Your task to perform on an android device: Open Google Maps Image 0: 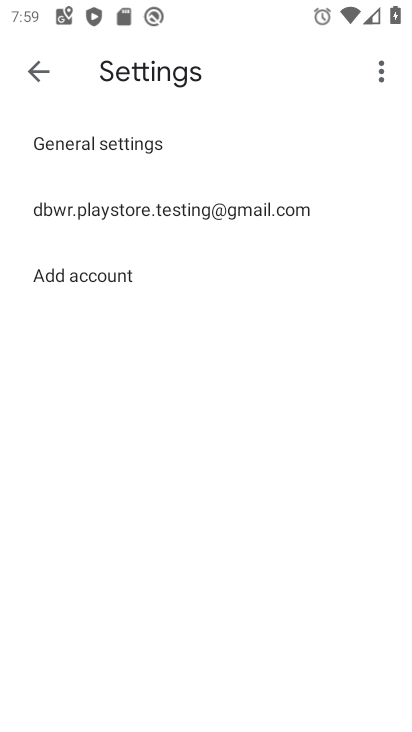
Step 0: press home button
Your task to perform on an android device: Open Google Maps Image 1: 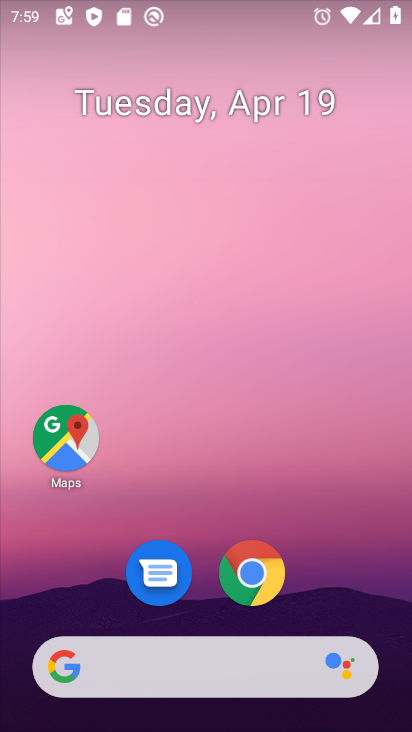
Step 1: click (60, 436)
Your task to perform on an android device: Open Google Maps Image 2: 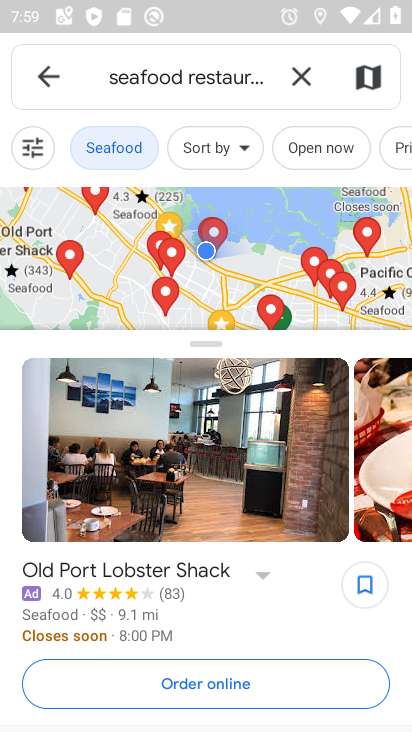
Step 2: click (41, 68)
Your task to perform on an android device: Open Google Maps Image 3: 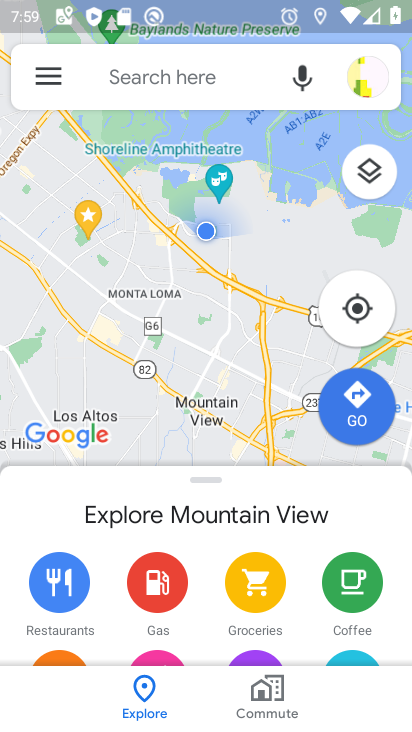
Step 3: click (163, 217)
Your task to perform on an android device: Open Google Maps Image 4: 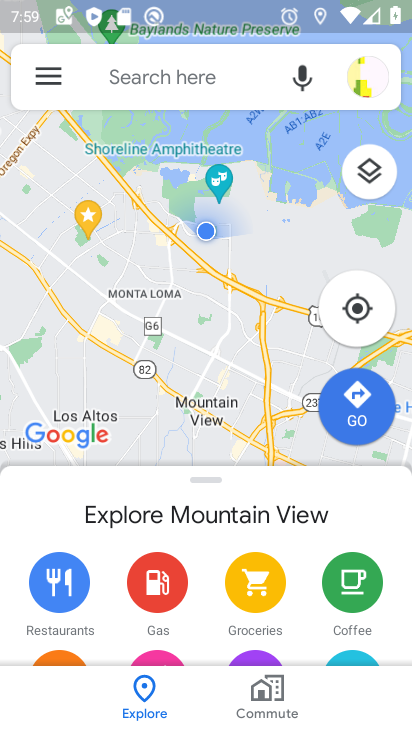
Step 4: task complete